Your task to perform on an android device: turn on sleep mode Image 0: 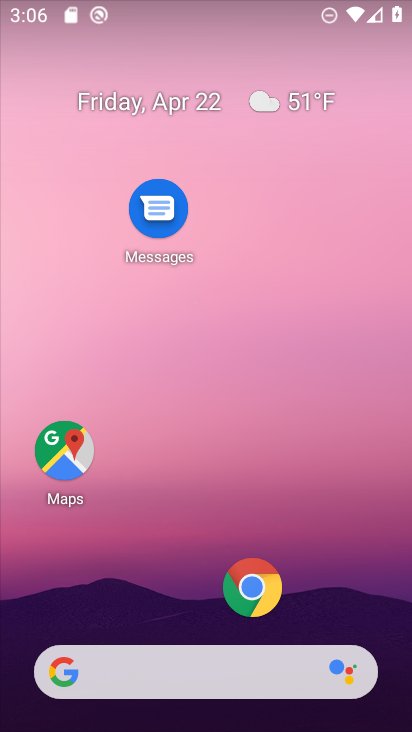
Step 0: drag from (184, 606) to (215, 172)
Your task to perform on an android device: turn on sleep mode Image 1: 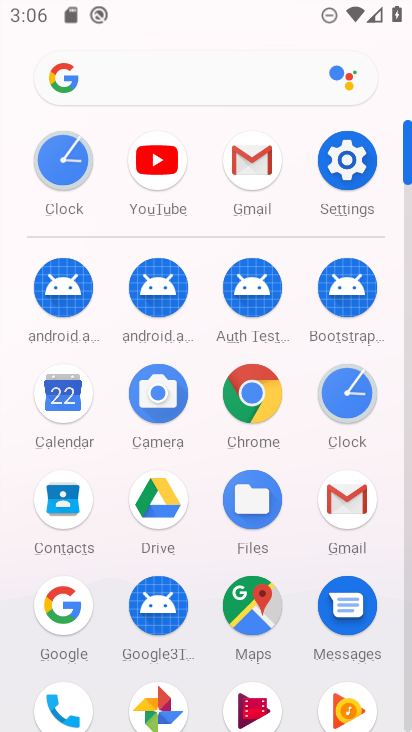
Step 1: click (329, 165)
Your task to perform on an android device: turn on sleep mode Image 2: 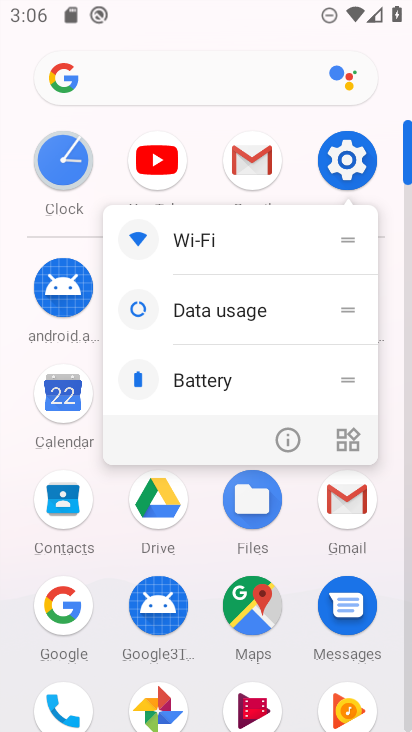
Step 2: click (361, 175)
Your task to perform on an android device: turn on sleep mode Image 3: 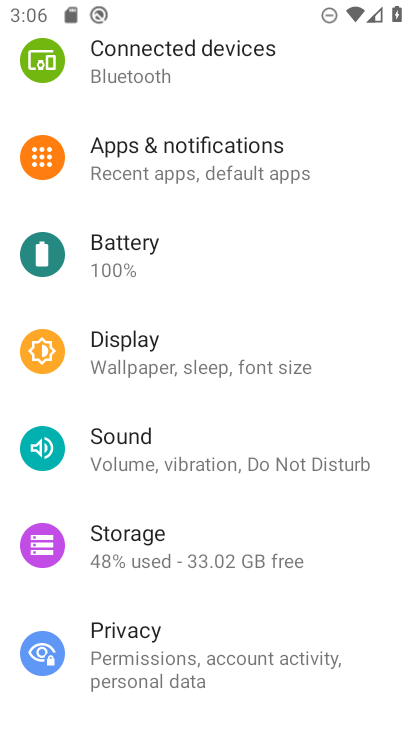
Step 3: click (156, 353)
Your task to perform on an android device: turn on sleep mode Image 4: 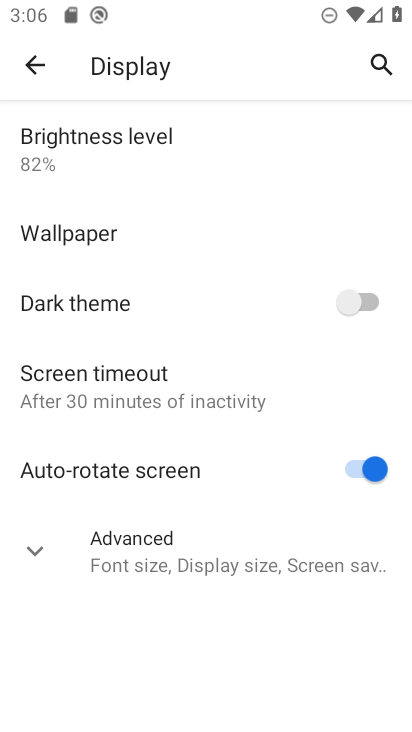
Step 4: click (175, 399)
Your task to perform on an android device: turn on sleep mode Image 5: 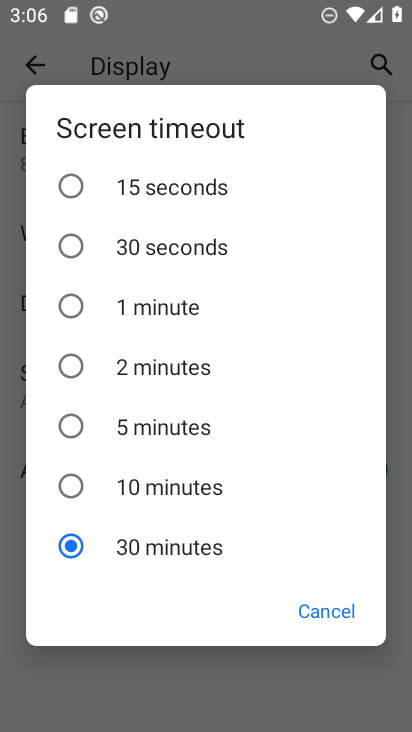
Step 5: click (155, 256)
Your task to perform on an android device: turn on sleep mode Image 6: 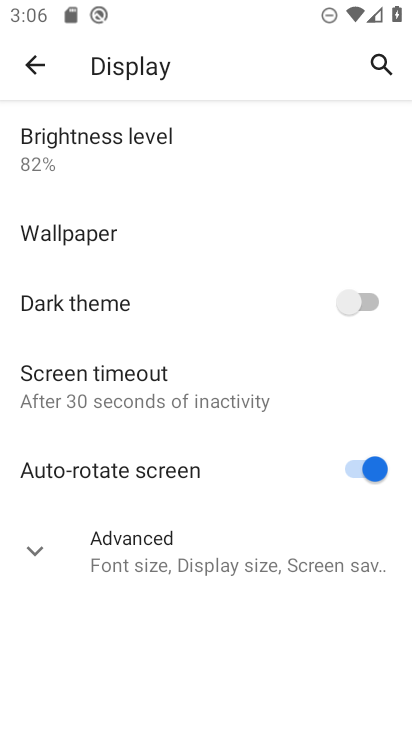
Step 6: task complete